Your task to perform on an android device: Do I have any events today? Image 0: 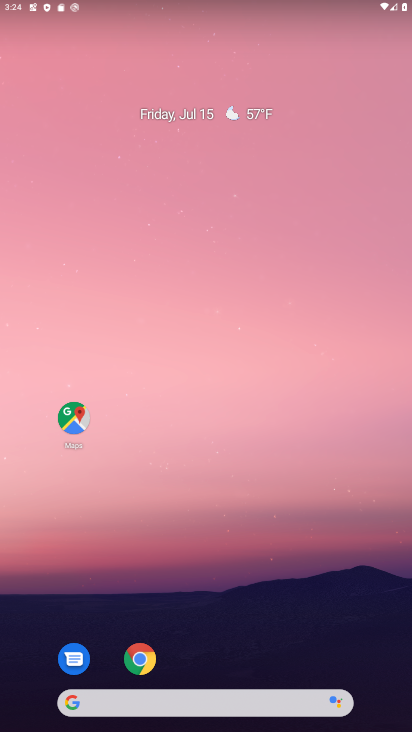
Step 0: drag from (71, 545) to (72, 134)
Your task to perform on an android device: Do I have any events today? Image 1: 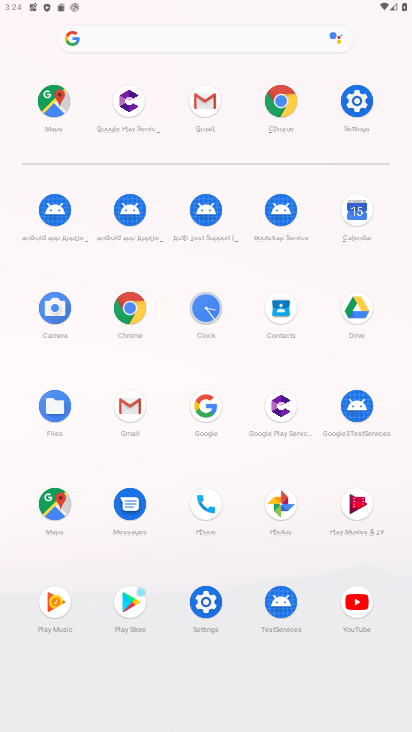
Step 1: click (359, 210)
Your task to perform on an android device: Do I have any events today? Image 2: 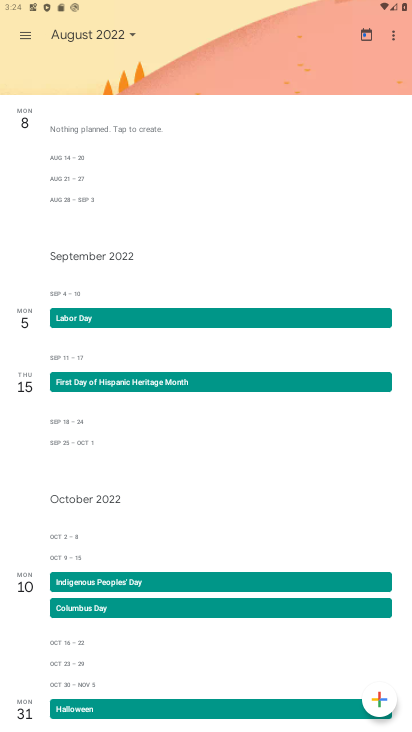
Step 2: click (95, 20)
Your task to perform on an android device: Do I have any events today? Image 3: 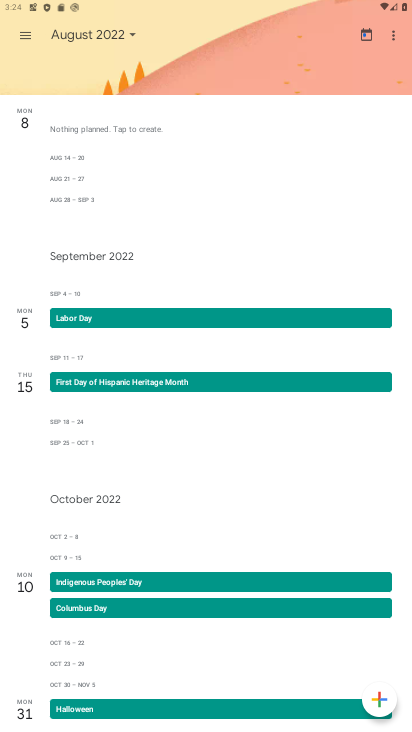
Step 3: click (85, 33)
Your task to perform on an android device: Do I have any events today? Image 4: 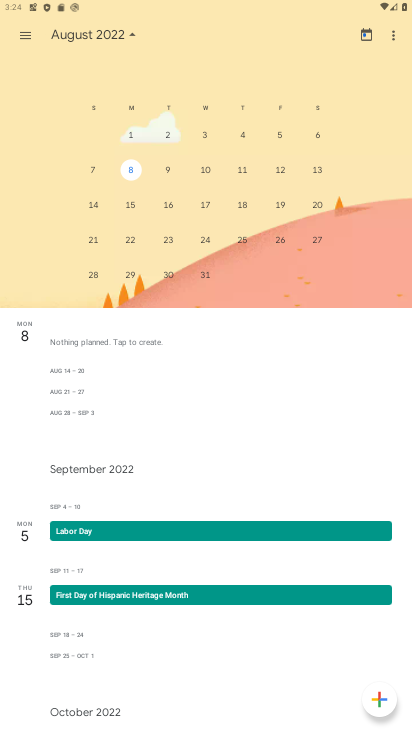
Step 4: drag from (31, 108) to (7, 139)
Your task to perform on an android device: Do I have any events today? Image 5: 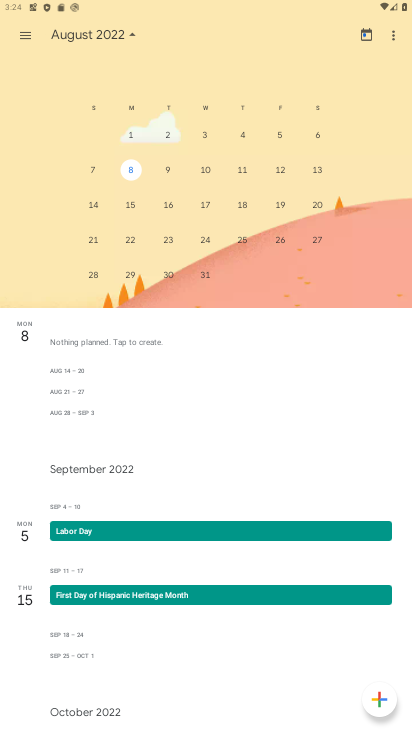
Step 5: drag from (35, 156) to (400, 339)
Your task to perform on an android device: Do I have any events today? Image 6: 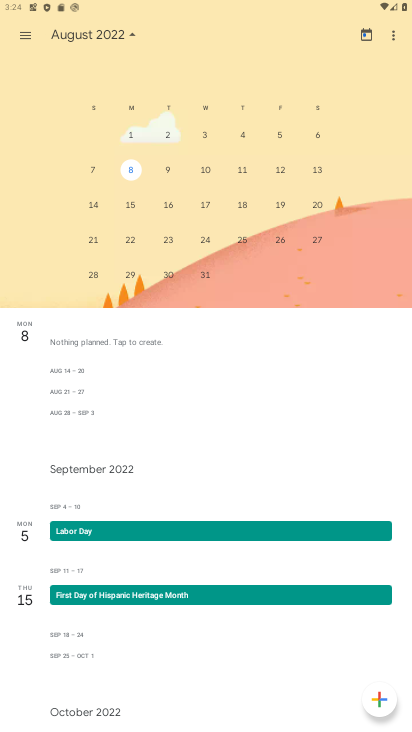
Step 6: drag from (12, 115) to (406, 76)
Your task to perform on an android device: Do I have any events today? Image 7: 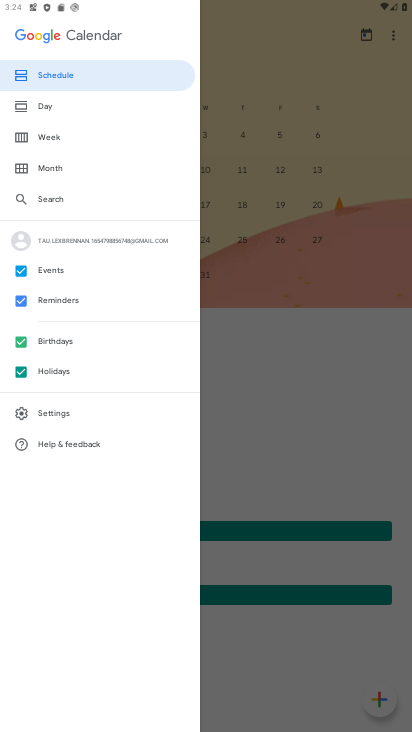
Step 7: click (331, 405)
Your task to perform on an android device: Do I have any events today? Image 8: 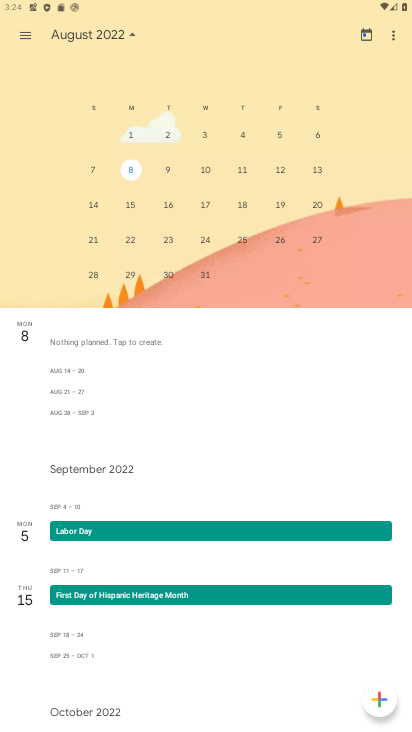
Step 8: task complete